Your task to perform on an android device: open a bookmark in the chrome app Image 0: 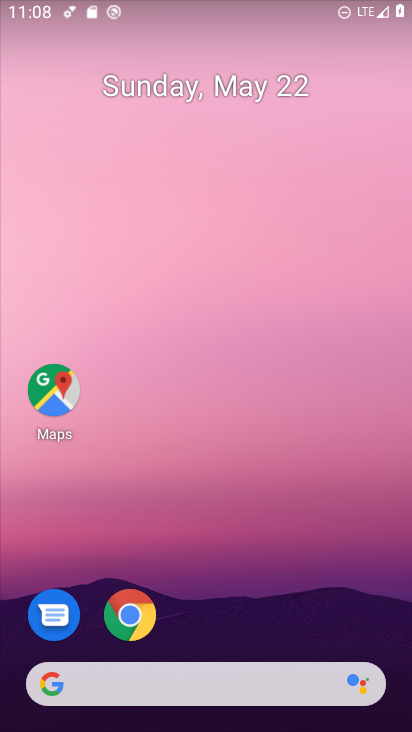
Step 0: click (124, 613)
Your task to perform on an android device: open a bookmark in the chrome app Image 1: 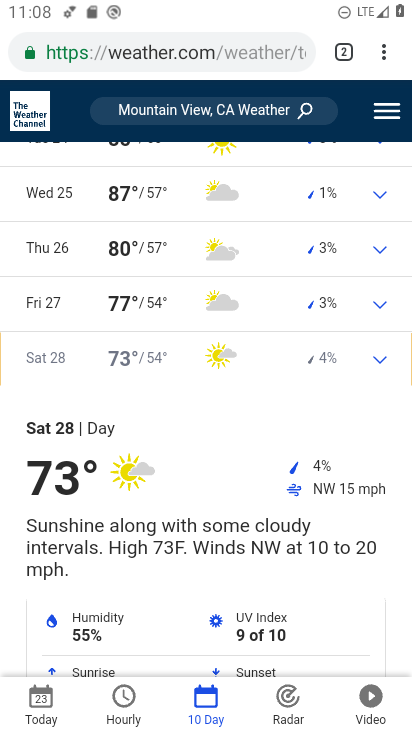
Step 1: drag from (383, 46) to (206, 201)
Your task to perform on an android device: open a bookmark in the chrome app Image 2: 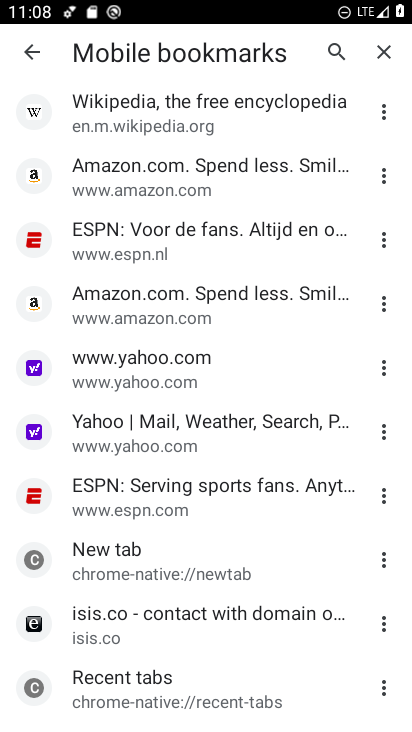
Step 2: click (162, 117)
Your task to perform on an android device: open a bookmark in the chrome app Image 3: 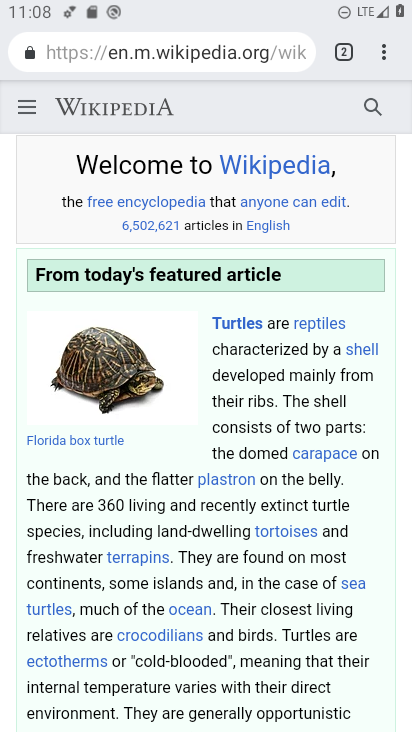
Step 3: task complete